Your task to perform on an android device: What's the weather going to be tomorrow? Image 0: 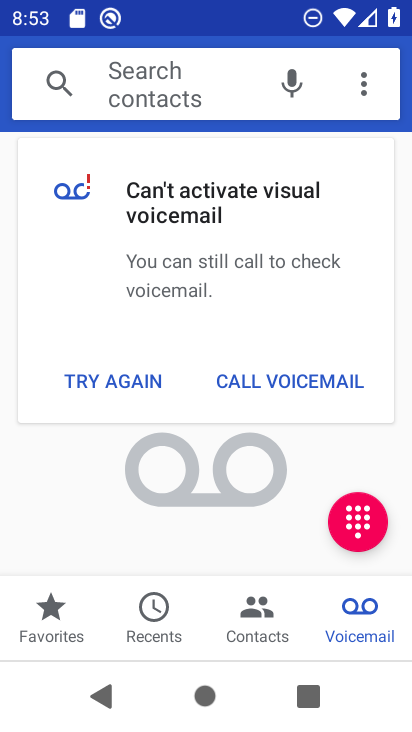
Step 0: press home button
Your task to perform on an android device: What's the weather going to be tomorrow? Image 1: 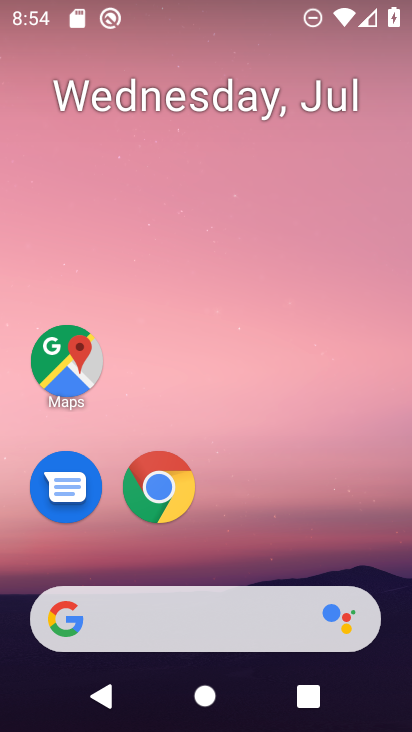
Step 1: click (208, 608)
Your task to perform on an android device: What's the weather going to be tomorrow? Image 2: 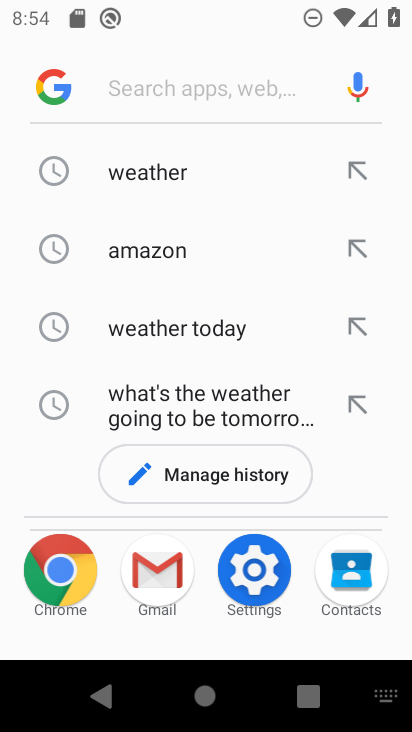
Step 2: click (198, 174)
Your task to perform on an android device: What's the weather going to be tomorrow? Image 3: 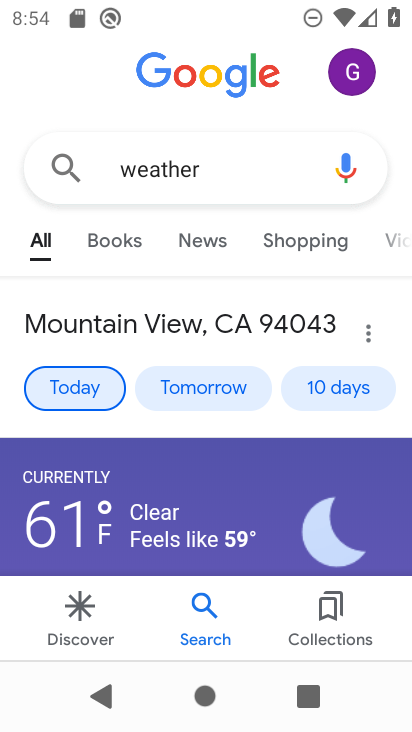
Step 3: click (203, 388)
Your task to perform on an android device: What's the weather going to be tomorrow? Image 4: 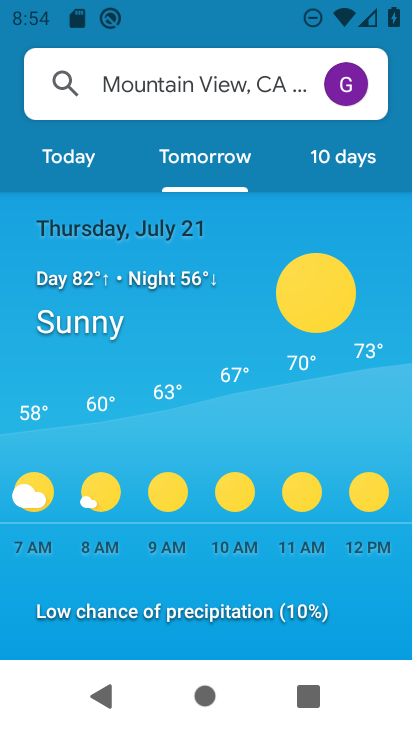
Step 4: task complete